Your task to perform on an android device: toggle airplane mode Image 0: 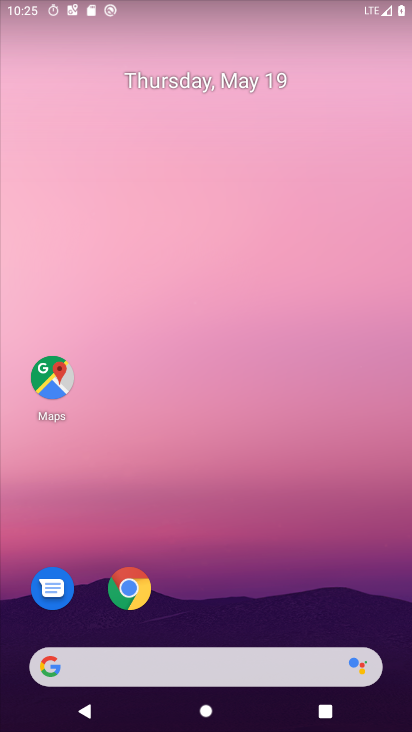
Step 0: press home button
Your task to perform on an android device: toggle airplane mode Image 1: 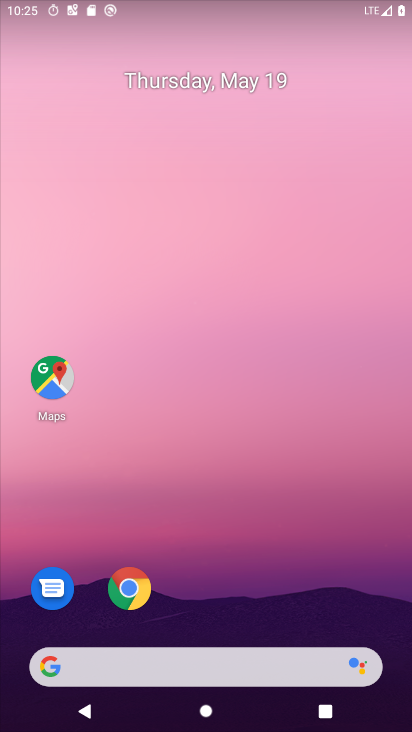
Step 1: drag from (165, 670) to (326, 175)
Your task to perform on an android device: toggle airplane mode Image 2: 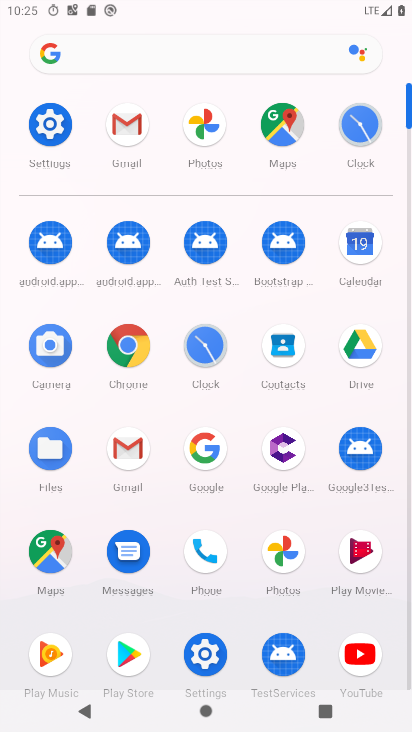
Step 2: click (53, 134)
Your task to perform on an android device: toggle airplane mode Image 3: 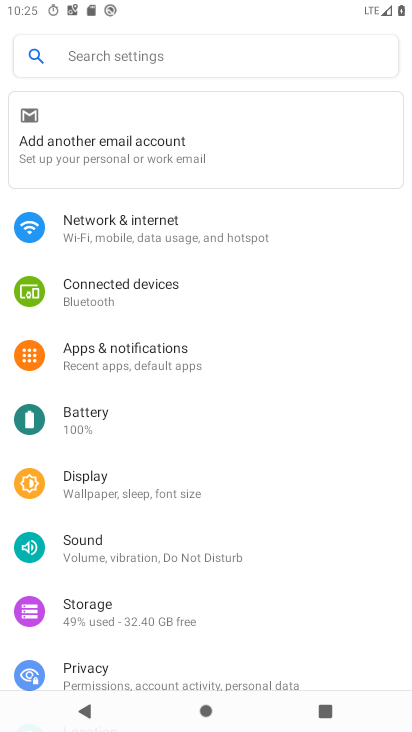
Step 3: click (175, 227)
Your task to perform on an android device: toggle airplane mode Image 4: 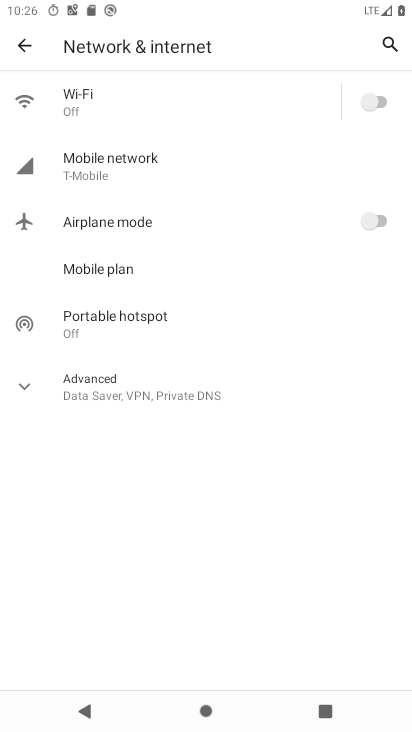
Step 4: click (378, 213)
Your task to perform on an android device: toggle airplane mode Image 5: 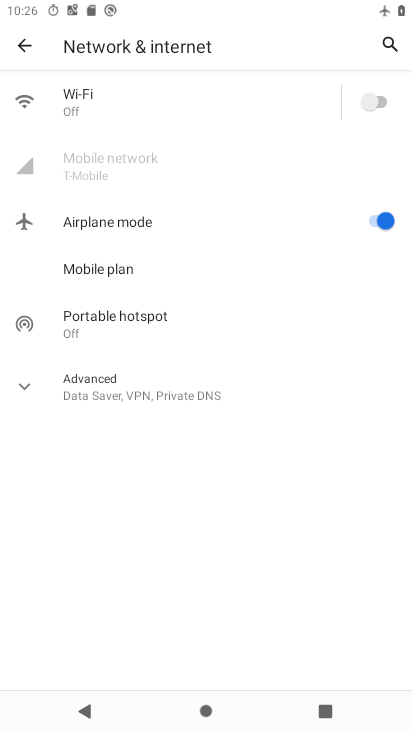
Step 5: task complete